Your task to perform on an android device: Turn off the flashlight Image 0: 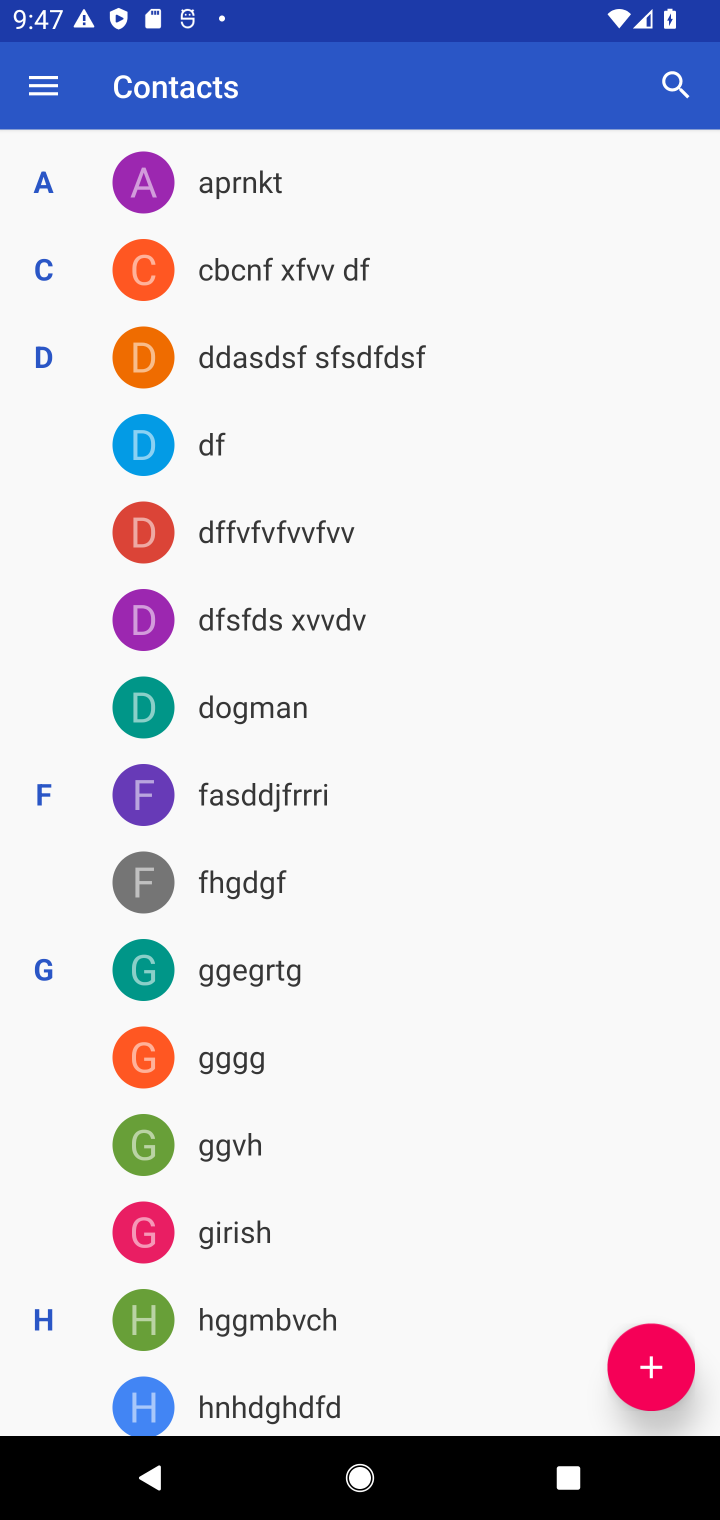
Step 0: drag from (351, 1227) to (389, 559)
Your task to perform on an android device: Turn off the flashlight Image 1: 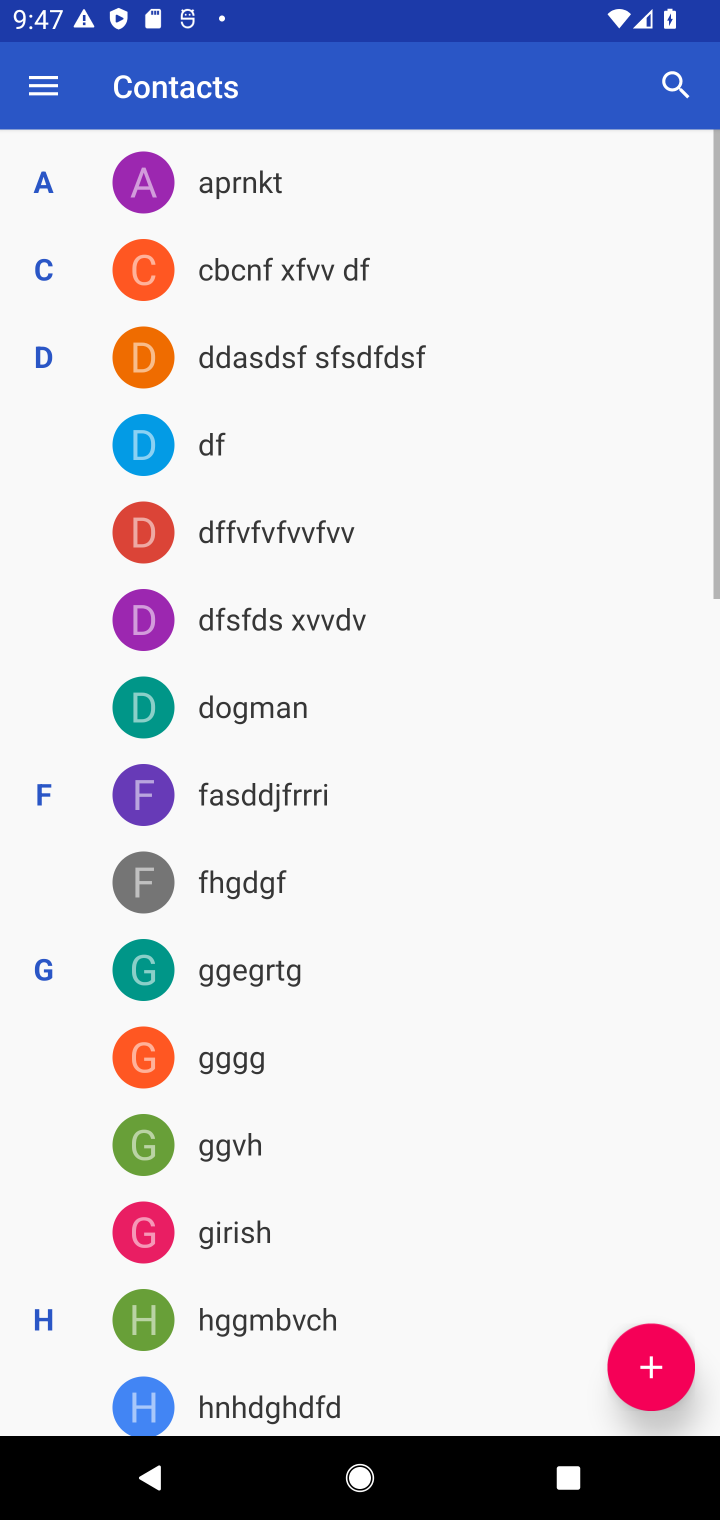
Step 1: drag from (403, 601) to (461, 1417)
Your task to perform on an android device: Turn off the flashlight Image 2: 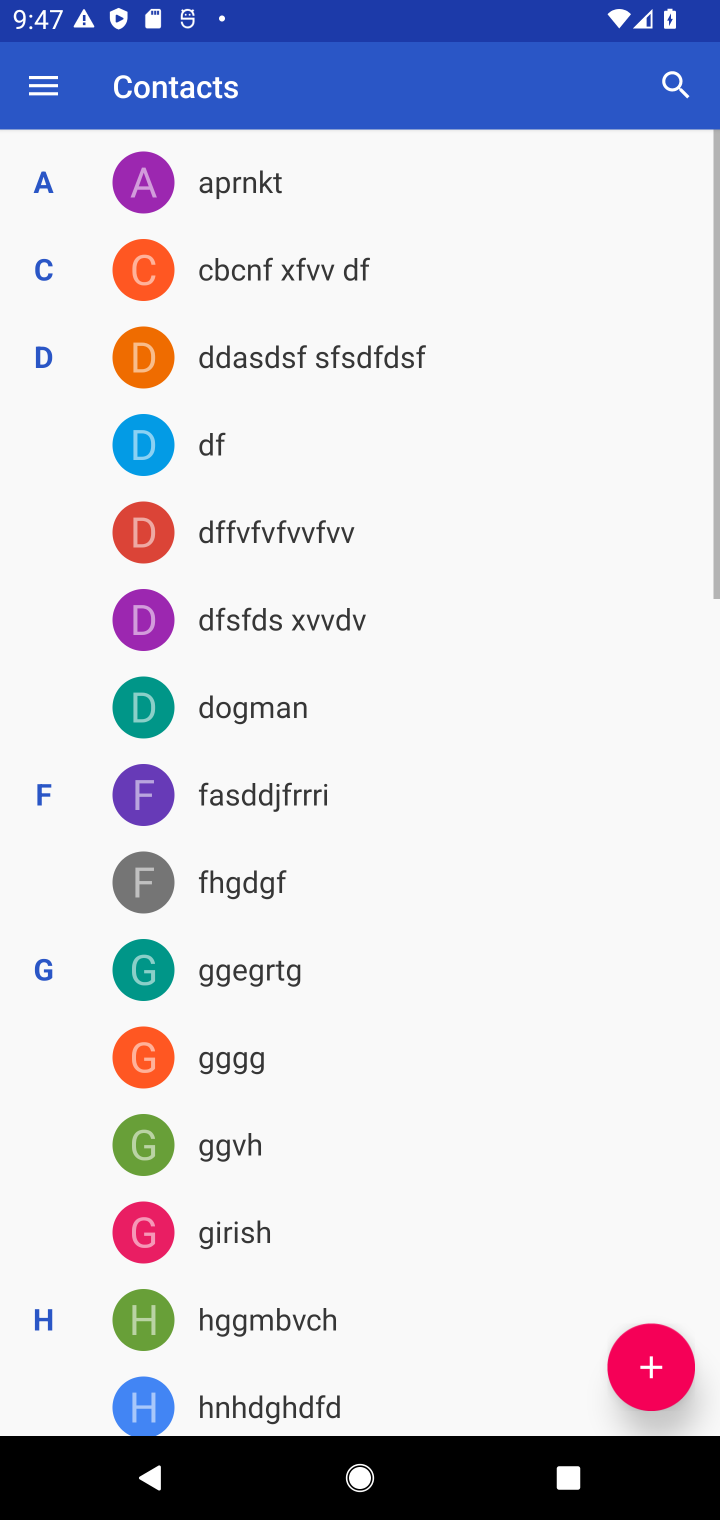
Step 2: press home button
Your task to perform on an android device: Turn off the flashlight Image 3: 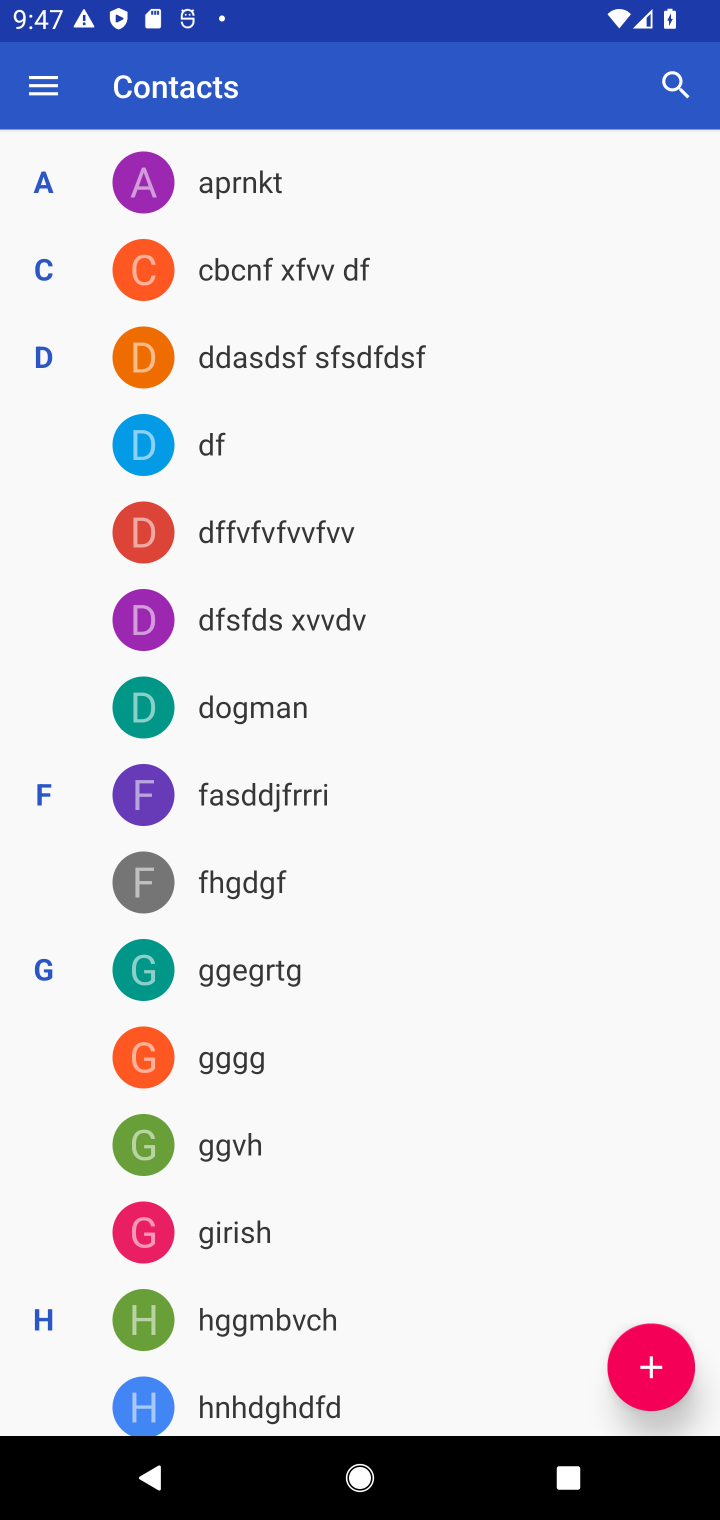
Step 3: drag from (353, 1227) to (324, 263)
Your task to perform on an android device: Turn off the flashlight Image 4: 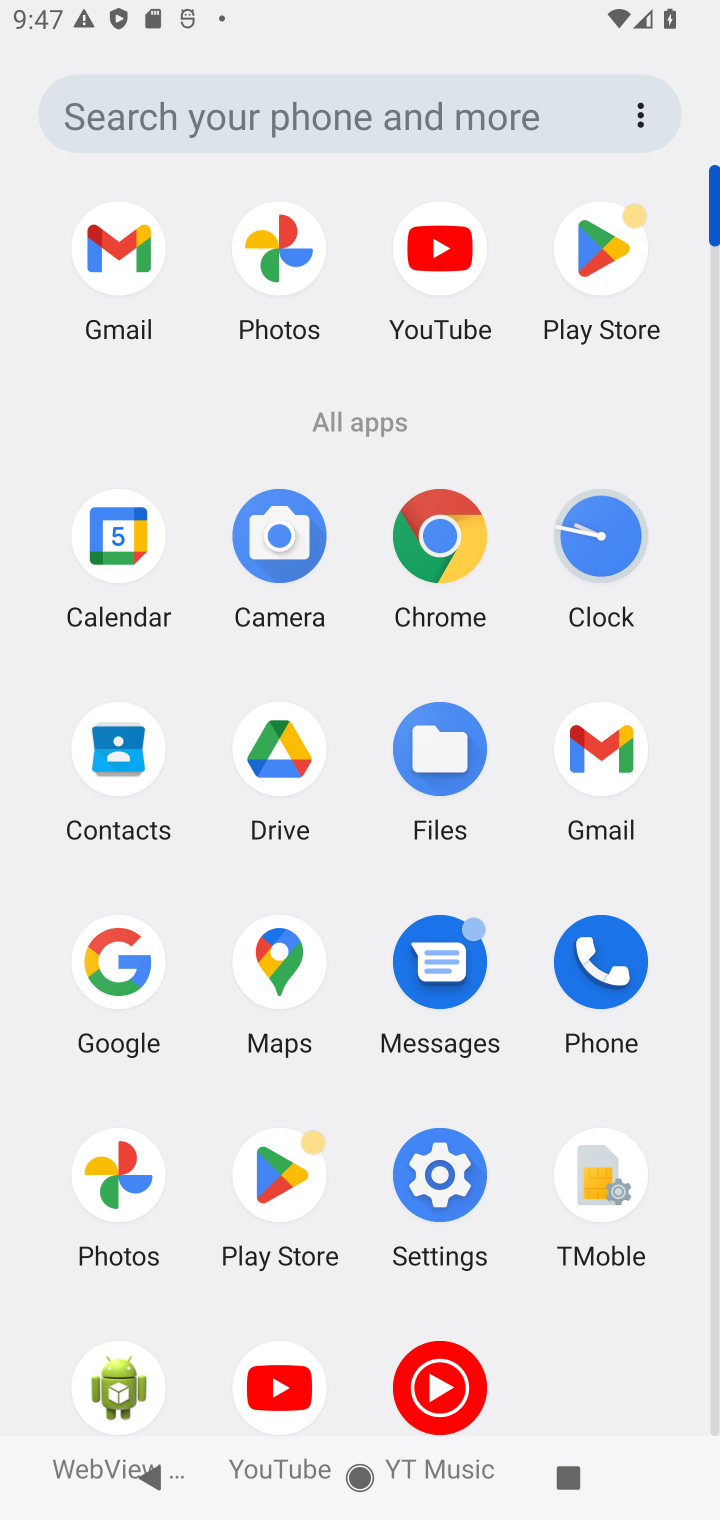
Step 4: click (449, 1175)
Your task to perform on an android device: Turn off the flashlight Image 5: 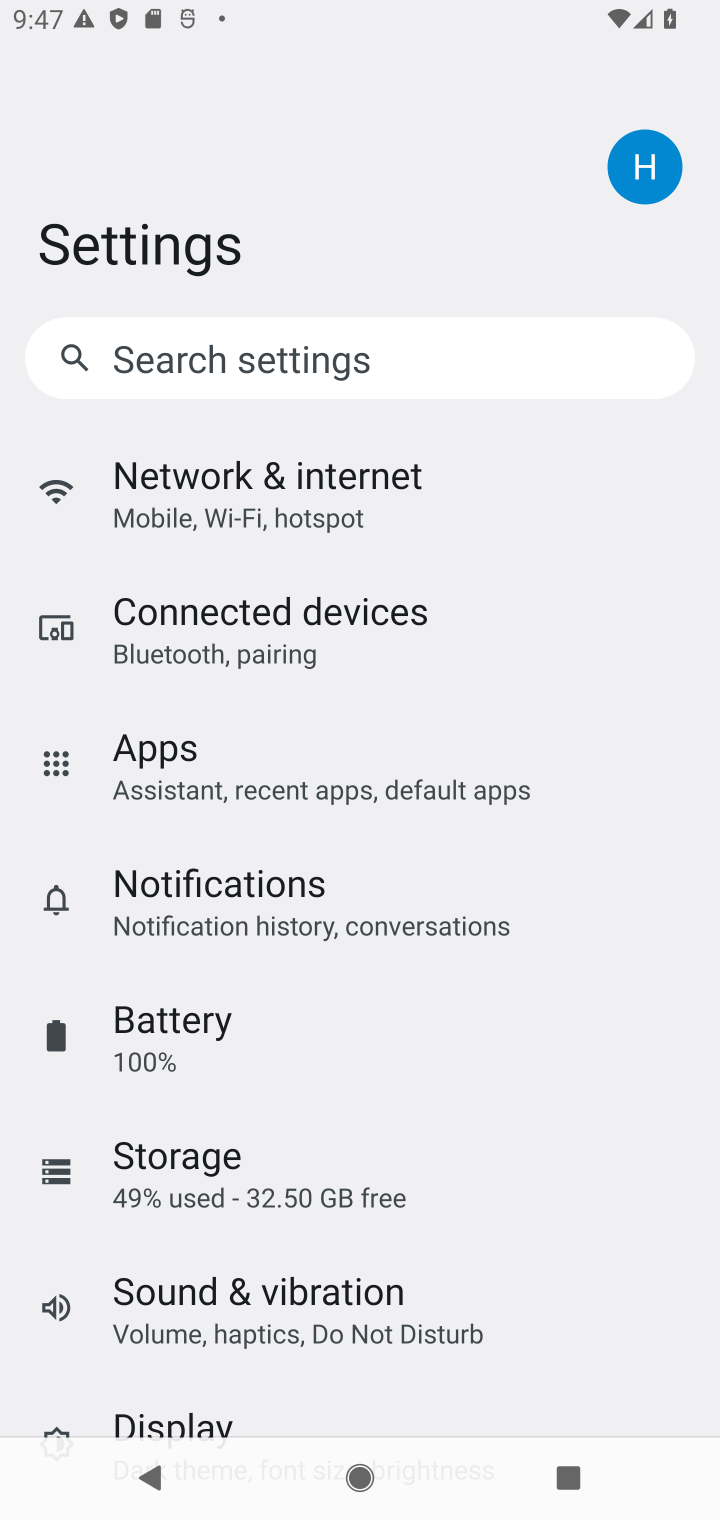
Step 5: click (243, 354)
Your task to perform on an android device: Turn off the flashlight Image 6: 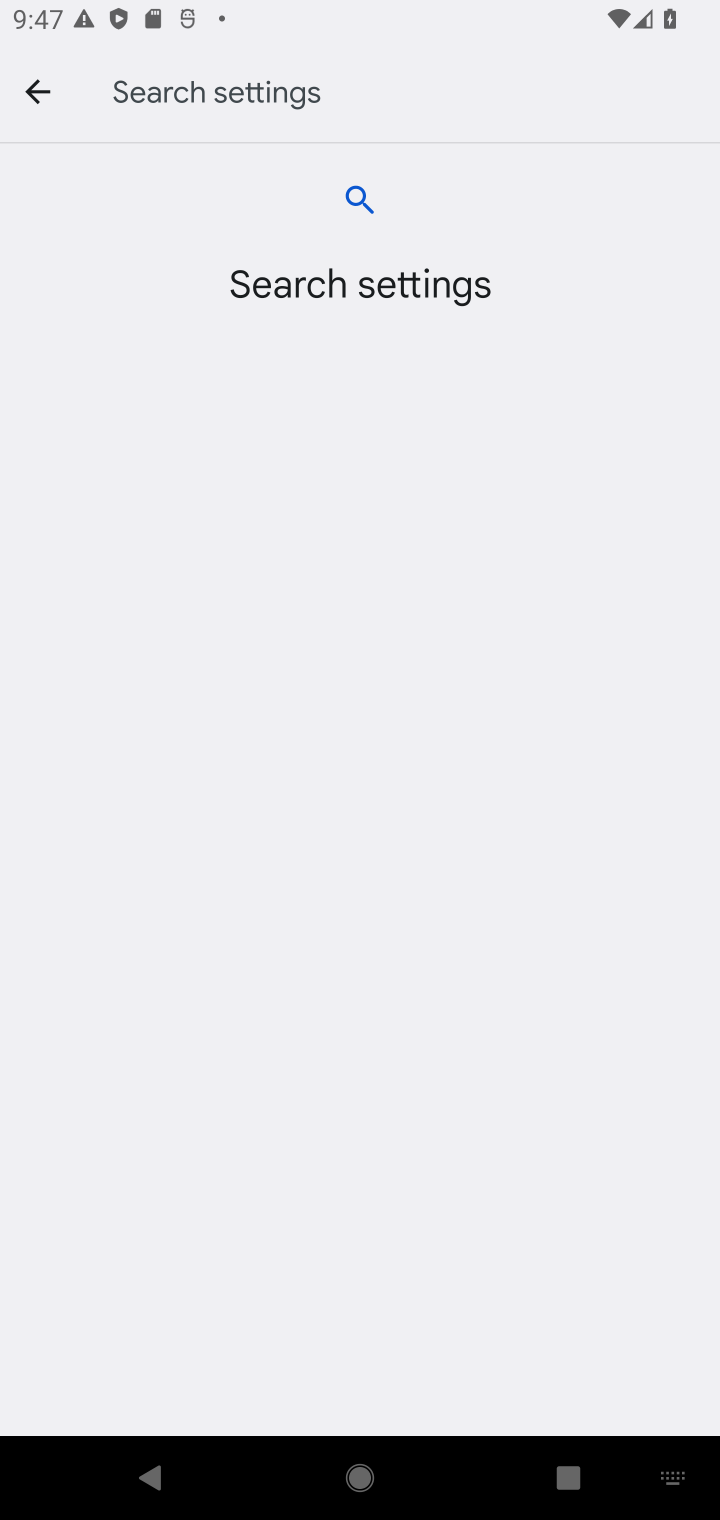
Step 6: type "flashlight"
Your task to perform on an android device: Turn off the flashlight Image 7: 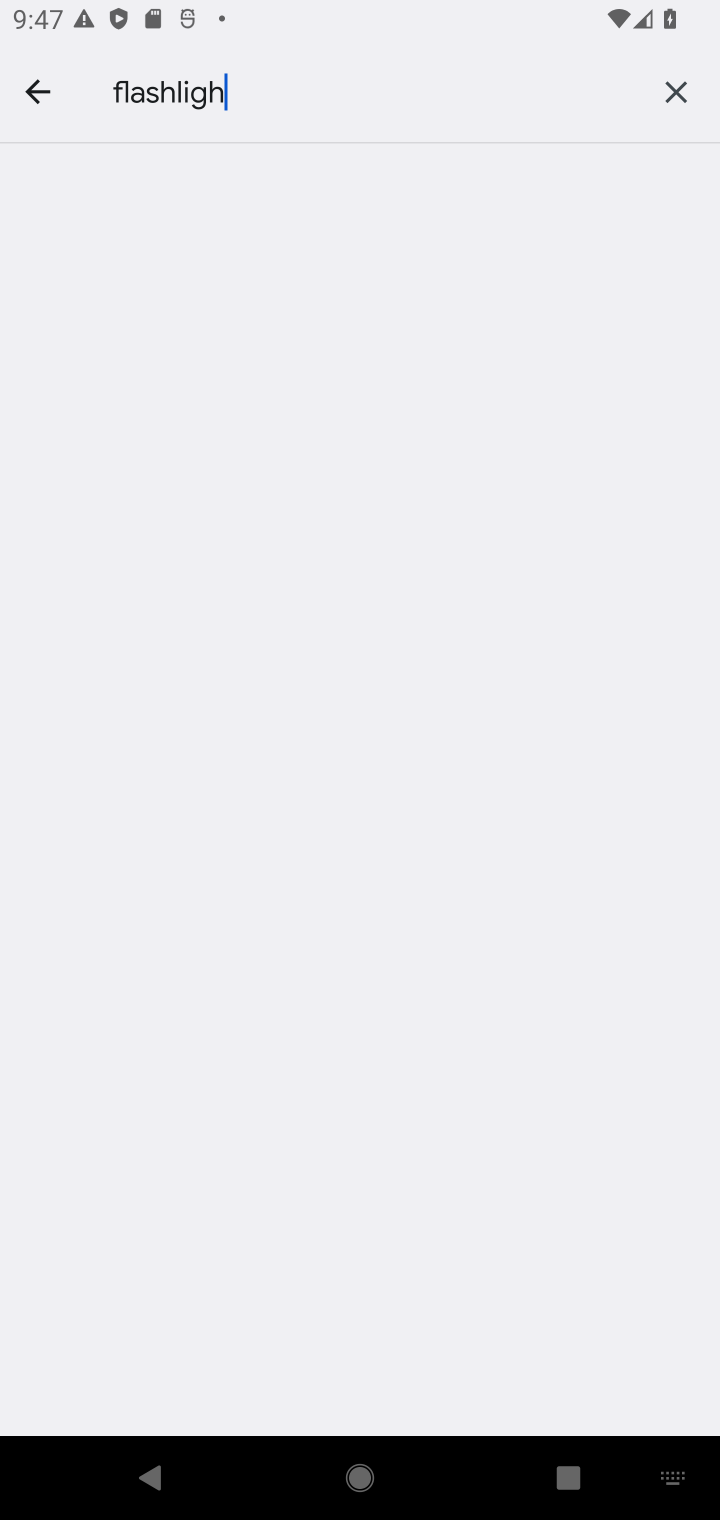
Step 7: type ""
Your task to perform on an android device: Turn off the flashlight Image 8: 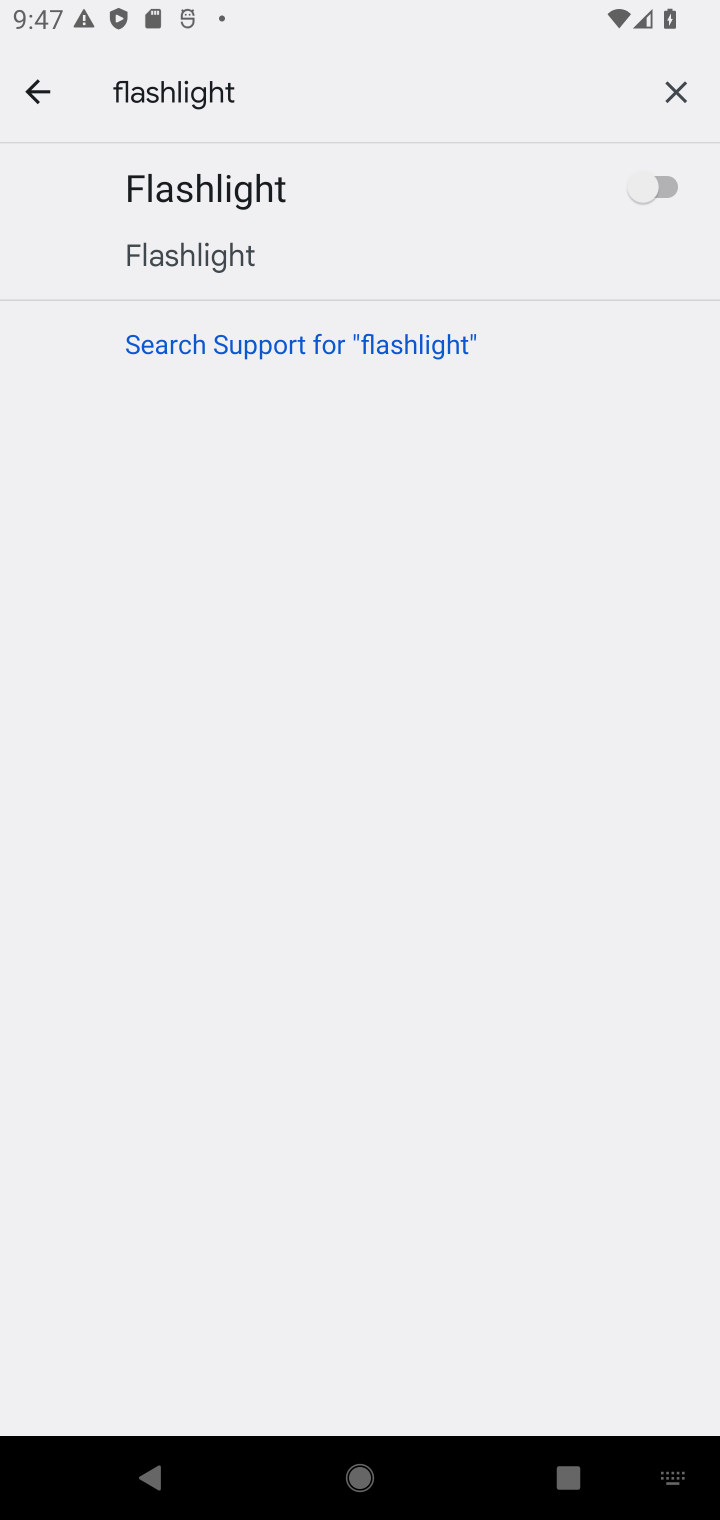
Step 8: task complete